Your task to perform on an android device: turn on translation in the chrome app Image 0: 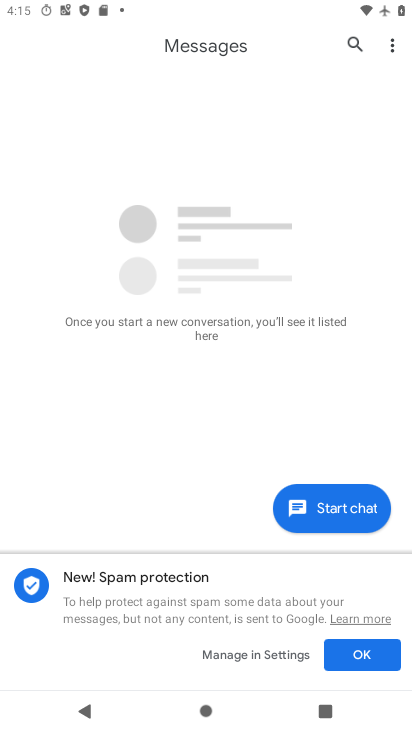
Step 0: press home button
Your task to perform on an android device: turn on translation in the chrome app Image 1: 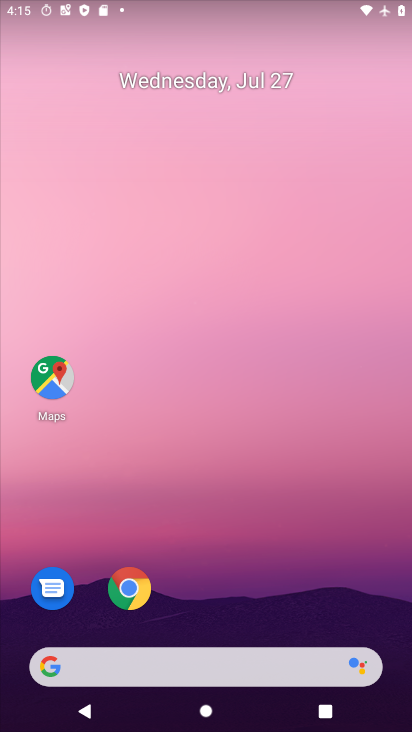
Step 1: click (130, 599)
Your task to perform on an android device: turn on translation in the chrome app Image 2: 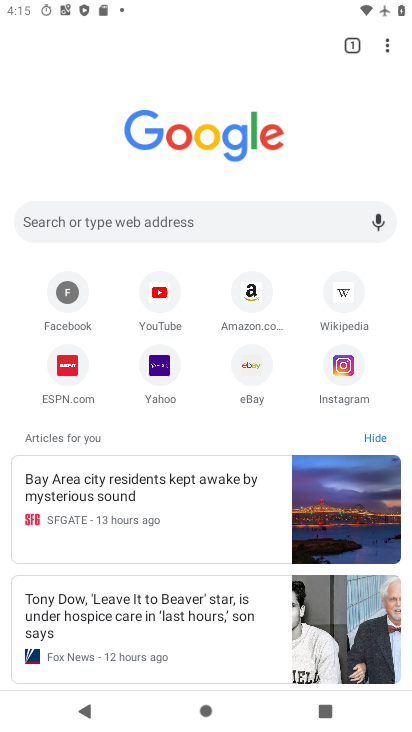
Step 2: drag from (385, 37) to (220, 440)
Your task to perform on an android device: turn on translation in the chrome app Image 3: 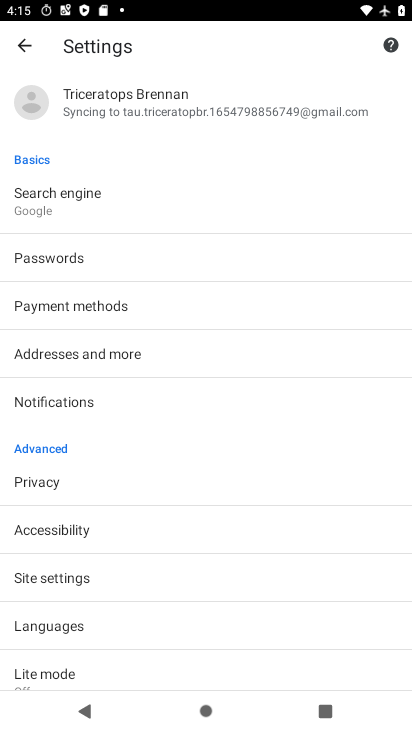
Step 3: click (65, 632)
Your task to perform on an android device: turn on translation in the chrome app Image 4: 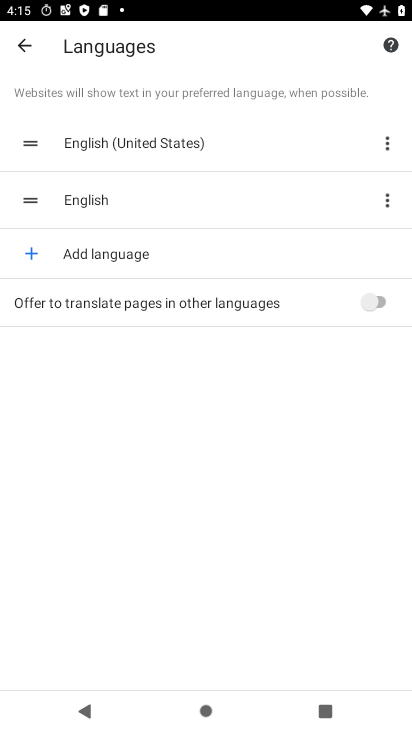
Step 4: click (376, 305)
Your task to perform on an android device: turn on translation in the chrome app Image 5: 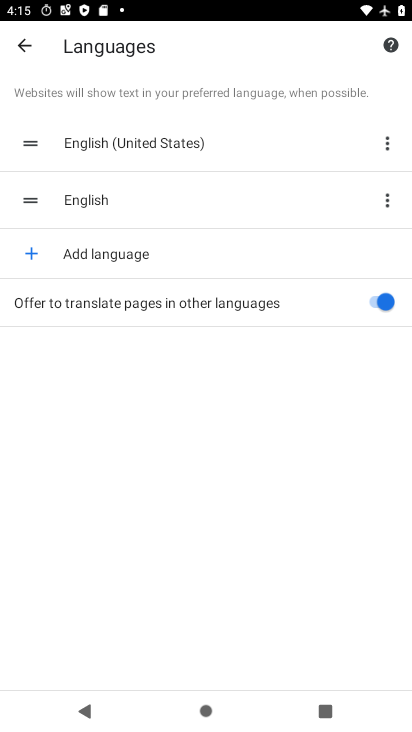
Step 5: task complete